Your task to perform on an android device: change the upload size in google photos Image 0: 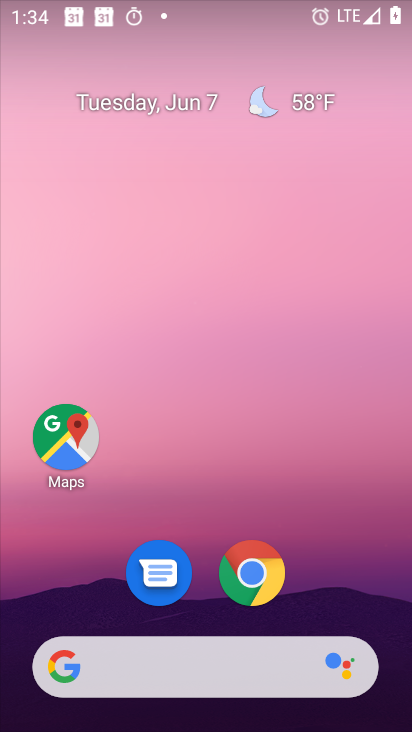
Step 0: drag from (207, 489) to (186, 13)
Your task to perform on an android device: change the upload size in google photos Image 1: 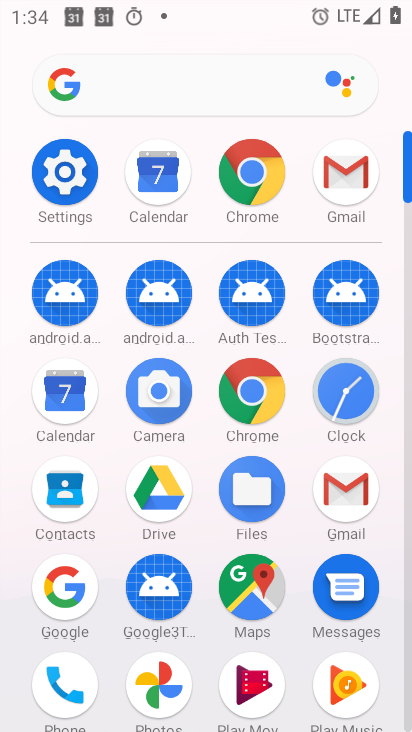
Step 1: click (143, 667)
Your task to perform on an android device: change the upload size in google photos Image 2: 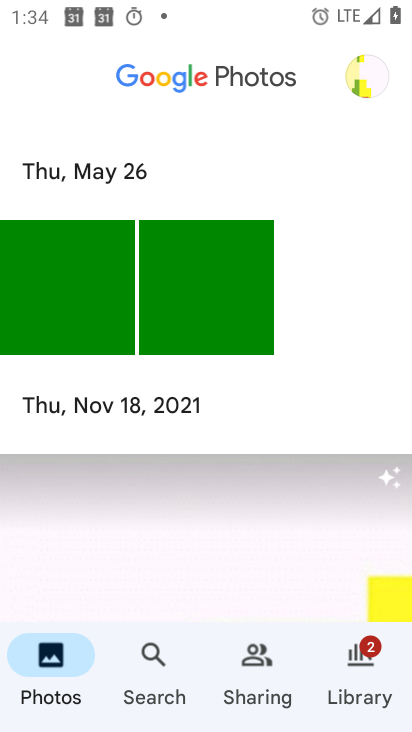
Step 2: click (368, 68)
Your task to perform on an android device: change the upload size in google photos Image 3: 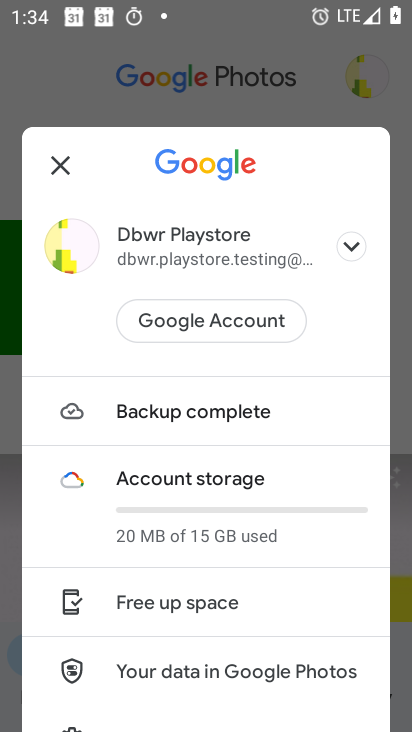
Step 3: drag from (243, 501) to (250, 207)
Your task to perform on an android device: change the upload size in google photos Image 4: 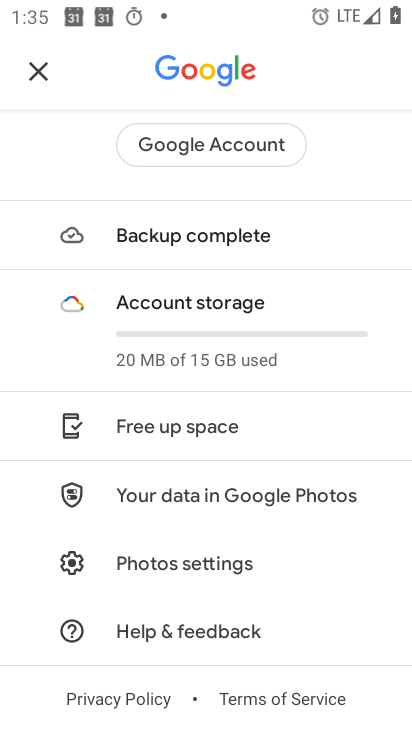
Step 4: click (171, 559)
Your task to perform on an android device: change the upload size in google photos Image 5: 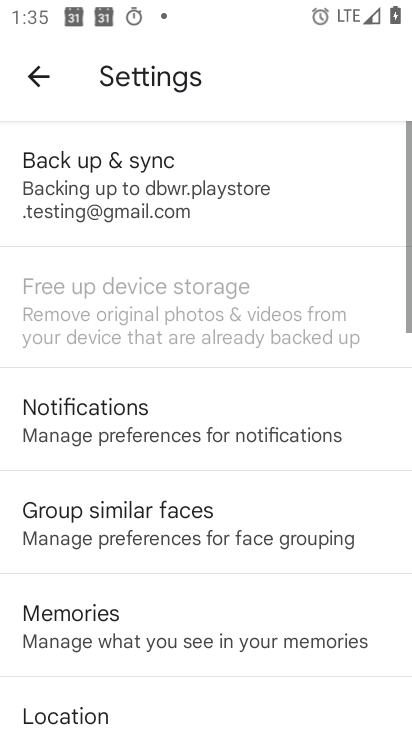
Step 5: click (148, 198)
Your task to perform on an android device: change the upload size in google photos Image 6: 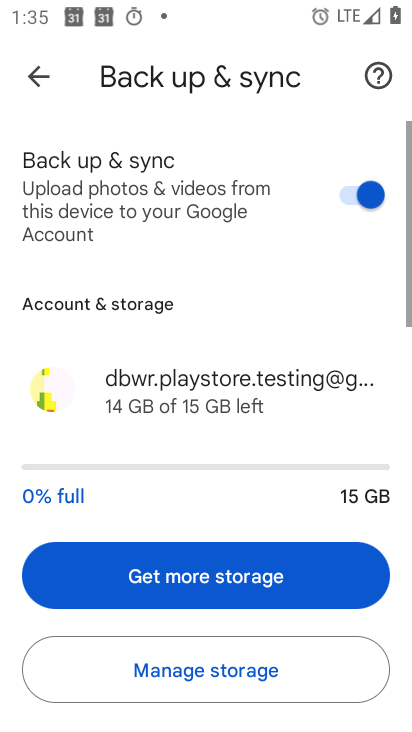
Step 6: drag from (138, 665) to (185, 229)
Your task to perform on an android device: change the upload size in google photos Image 7: 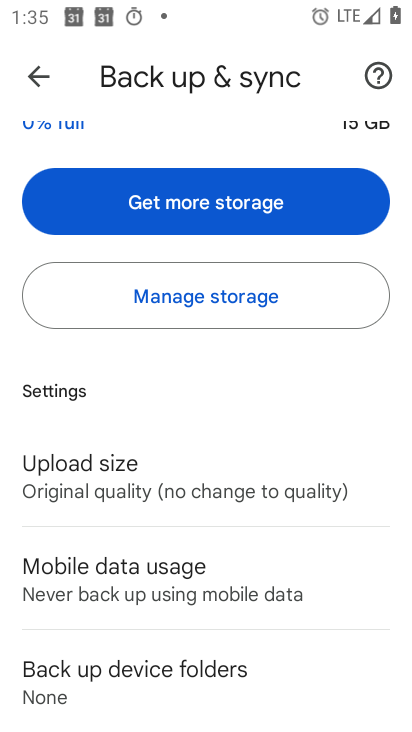
Step 7: click (143, 496)
Your task to perform on an android device: change the upload size in google photos Image 8: 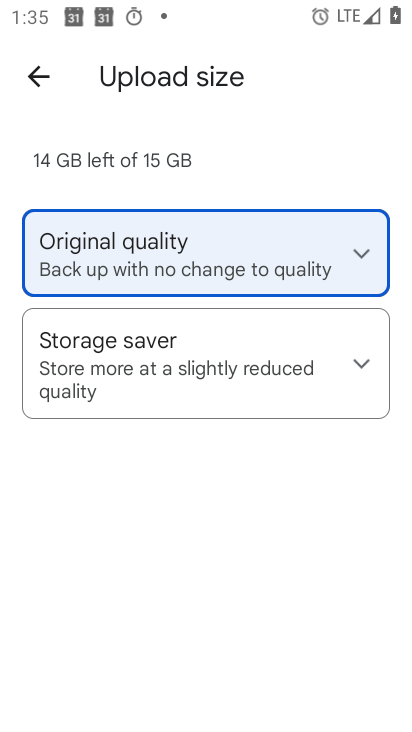
Step 8: click (95, 360)
Your task to perform on an android device: change the upload size in google photos Image 9: 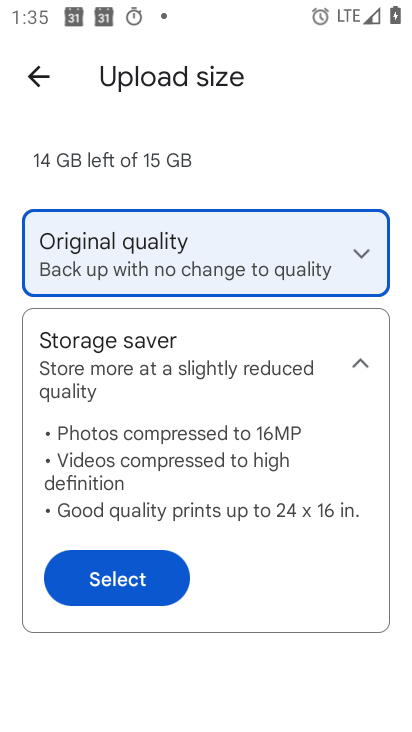
Step 9: click (123, 577)
Your task to perform on an android device: change the upload size in google photos Image 10: 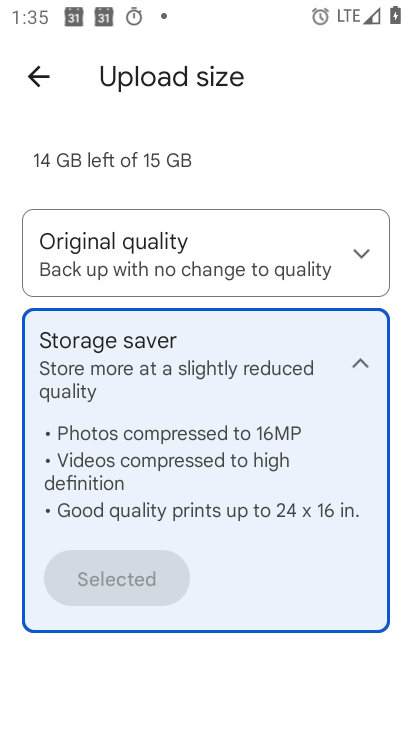
Step 10: task complete